Your task to perform on an android device: What is the recent news? Image 0: 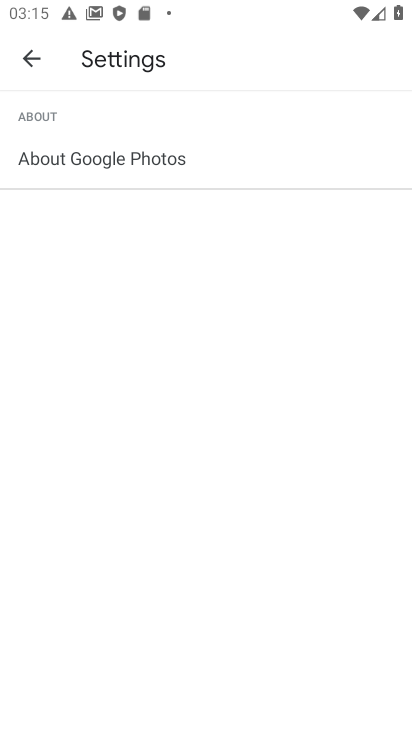
Step 0: press home button
Your task to perform on an android device: What is the recent news? Image 1: 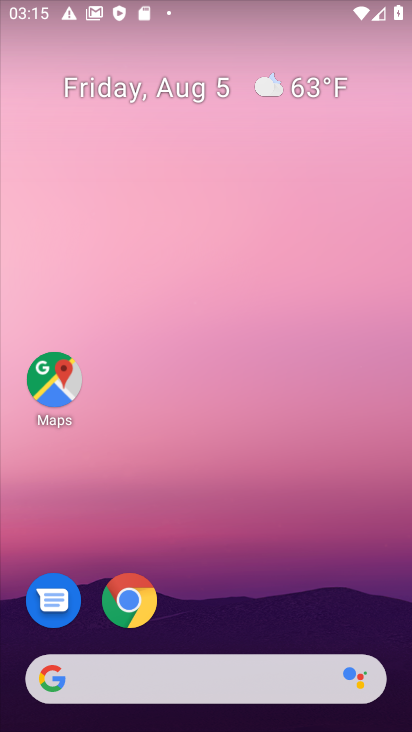
Step 1: drag from (168, 676) to (219, 140)
Your task to perform on an android device: What is the recent news? Image 2: 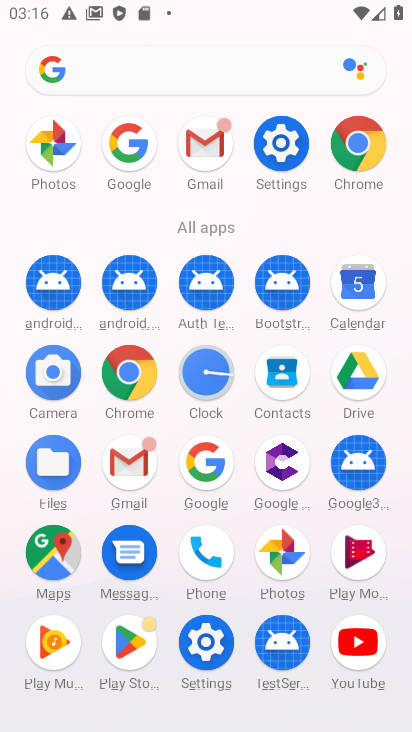
Step 2: click (129, 143)
Your task to perform on an android device: What is the recent news? Image 3: 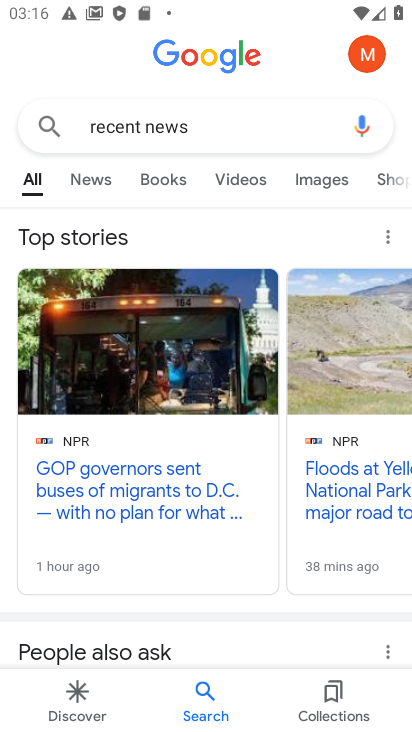
Step 3: click (368, 479)
Your task to perform on an android device: What is the recent news? Image 4: 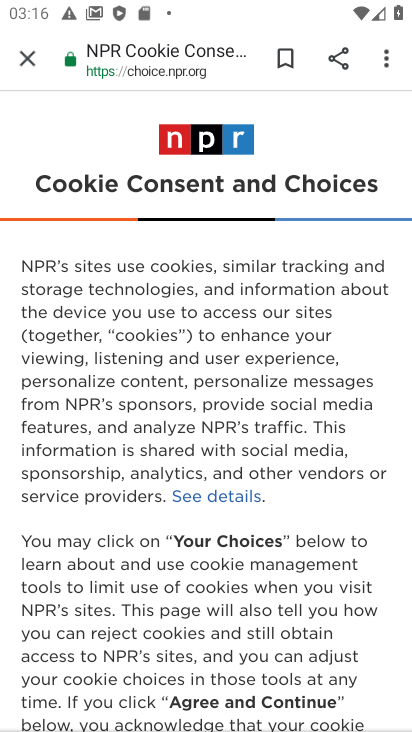
Step 4: task complete